Your task to perform on an android device: choose inbox layout in the gmail app Image 0: 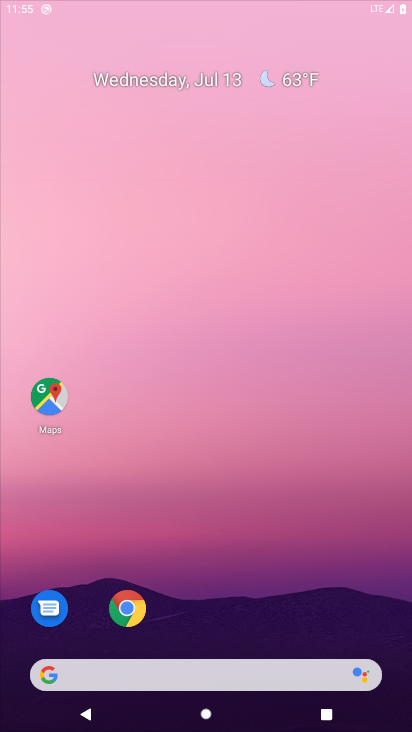
Step 0: press home button
Your task to perform on an android device: choose inbox layout in the gmail app Image 1: 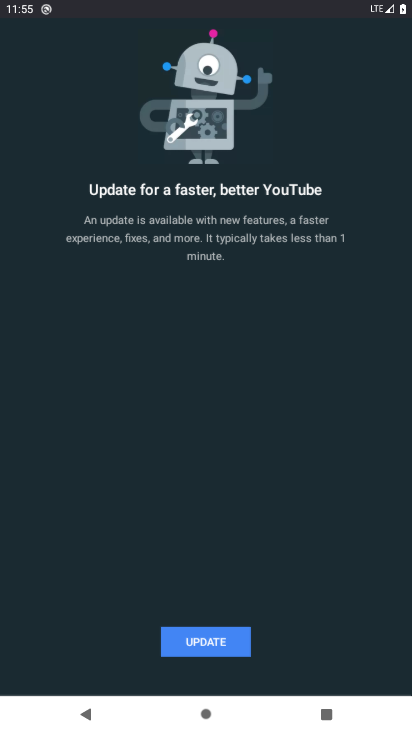
Step 1: drag from (380, 21) to (328, 1)
Your task to perform on an android device: choose inbox layout in the gmail app Image 2: 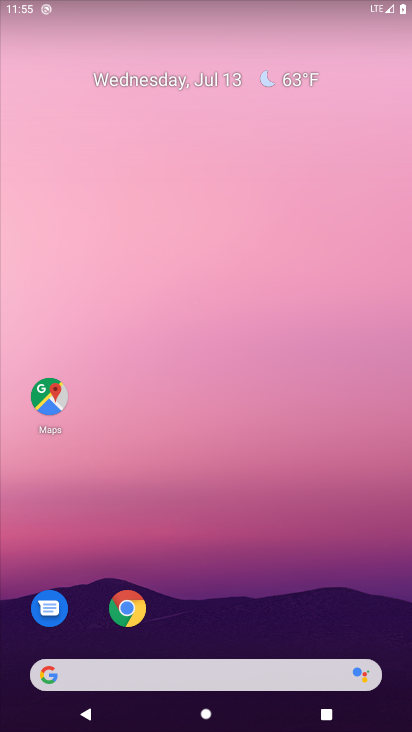
Step 2: drag from (272, 637) to (282, 124)
Your task to perform on an android device: choose inbox layout in the gmail app Image 3: 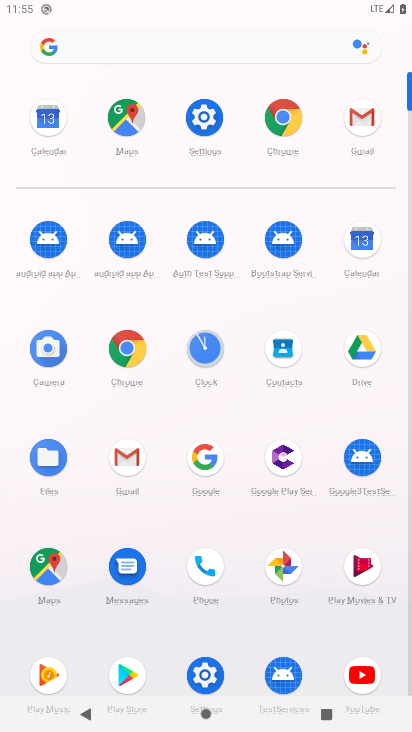
Step 3: click (113, 480)
Your task to perform on an android device: choose inbox layout in the gmail app Image 4: 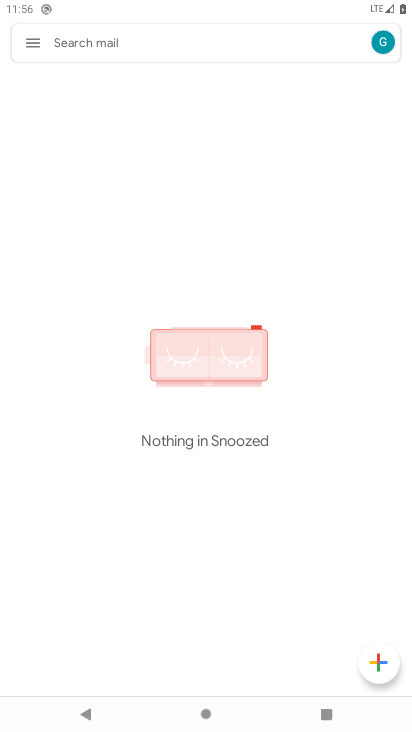
Step 4: click (42, 36)
Your task to perform on an android device: choose inbox layout in the gmail app Image 5: 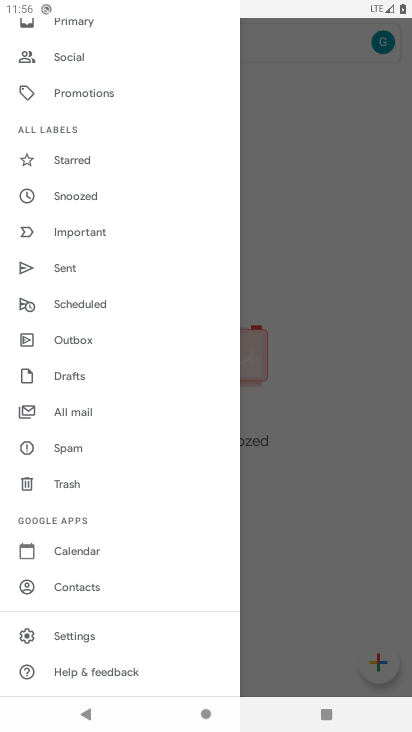
Step 5: click (84, 634)
Your task to perform on an android device: choose inbox layout in the gmail app Image 6: 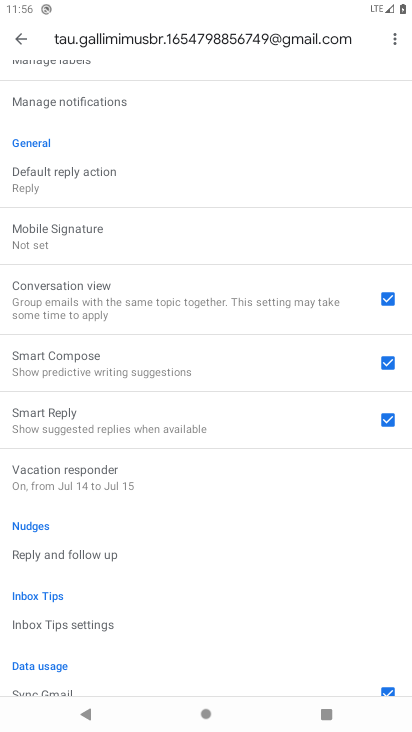
Step 6: drag from (109, 30) to (241, 473)
Your task to perform on an android device: choose inbox layout in the gmail app Image 7: 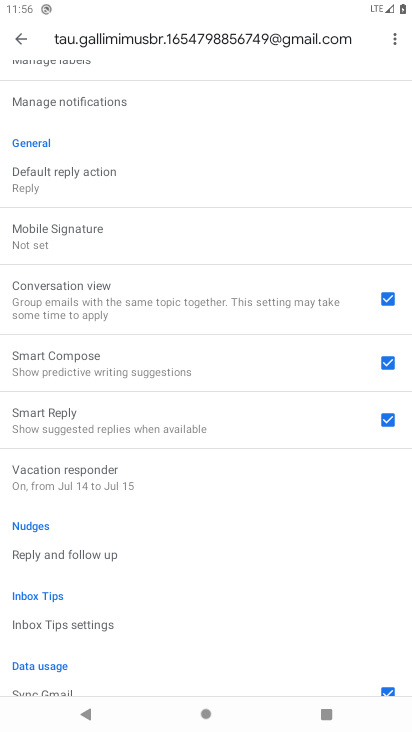
Step 7: drag from (141, 180) to (105, 654)
Your task to perform on an android device: choose inbox layout in the gmail app Image 8: 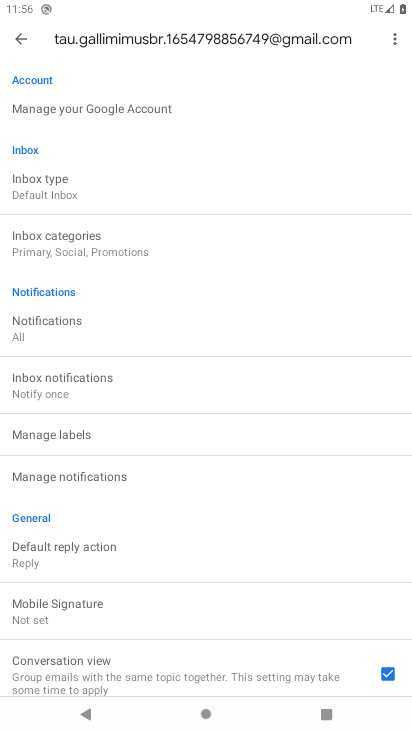
Step 8: click (45, 182)
Your task to perform on an android device: choose inbox layout in the gmail app Image 9: 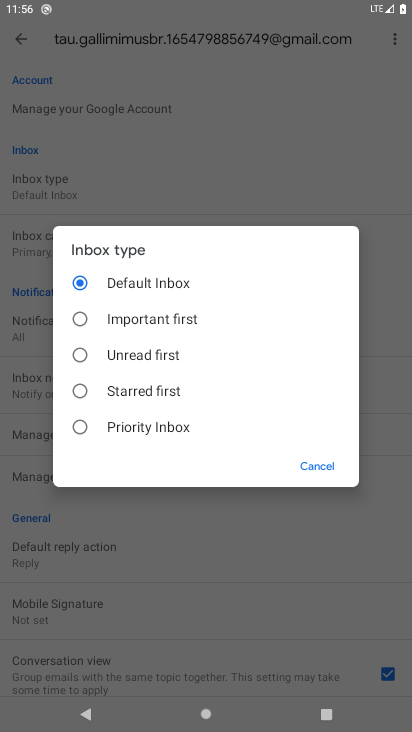
Step 9: click (119, 366)
Your task to perform on an android device: choose inbox layout in the gmail app Image 10: 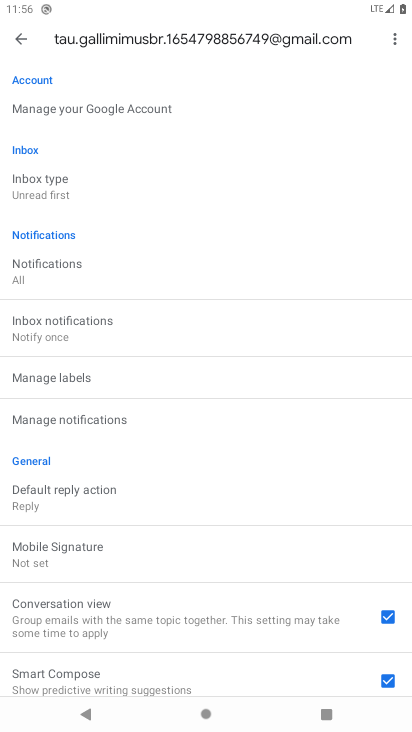
Step 10: task complete